Your task to perform on an android device: delete a single message in the gmail app Image 0: 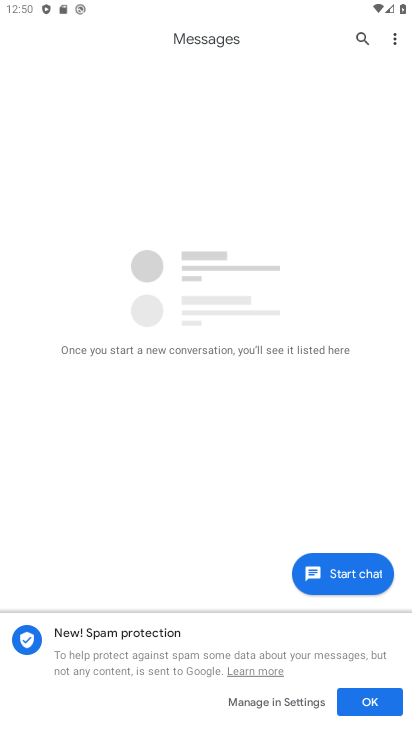
Step 0: press home button
Your task to perform on an android device: delete a single message in the gmail app Image 1: 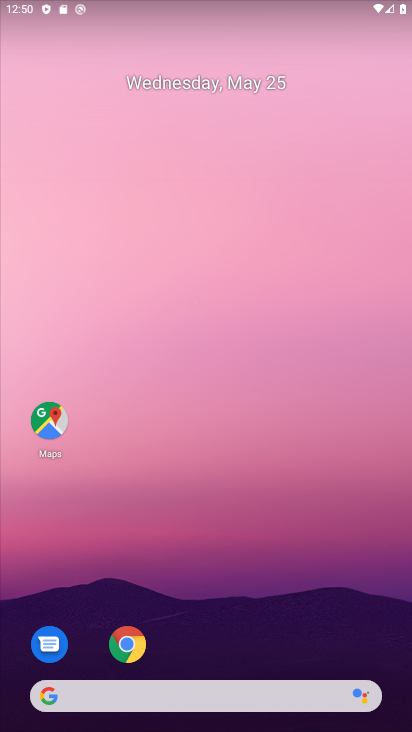
Step 1: drag from (206, 646) to (200, 29)
Your task to perform on an android device: delete a single message in the gmail app Image 2: 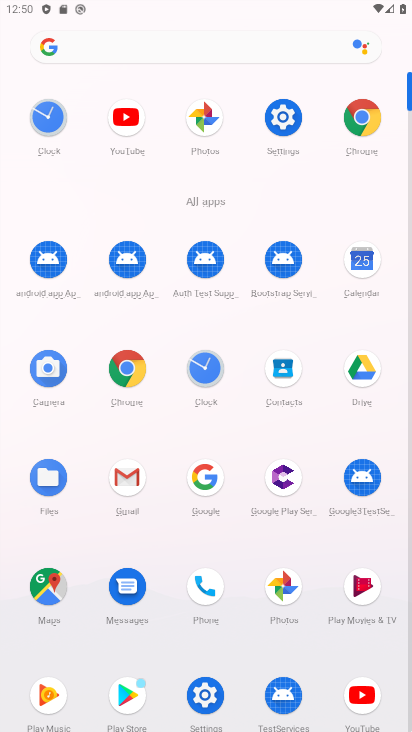
Step 2: click (117, 481)
Your task to perform on an android device: delete a single message in the gmail app Image 3: 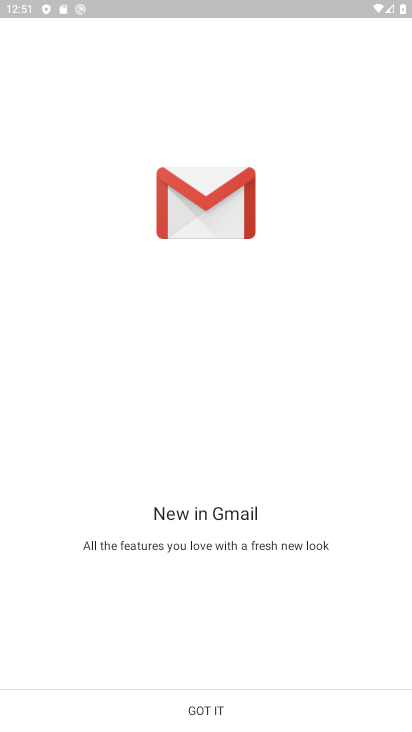
Step 3: click (183, 717)
Your task to perform on an android device: delete a single message in the gmail app Image 4: 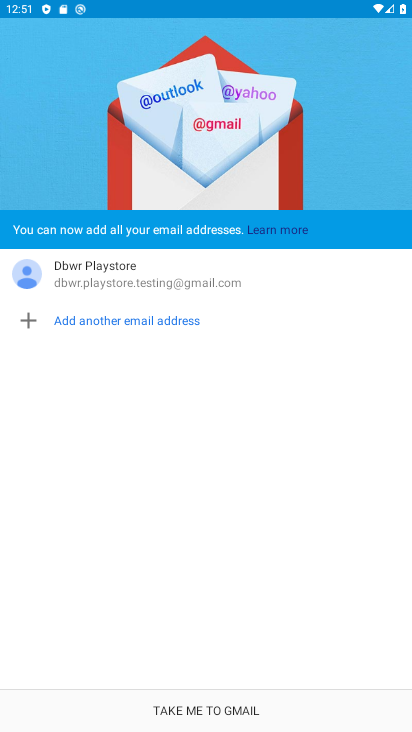
Step 4: click (183, 716)
Your task to perform on an android device: delete a single message in the gmail app Image 5: 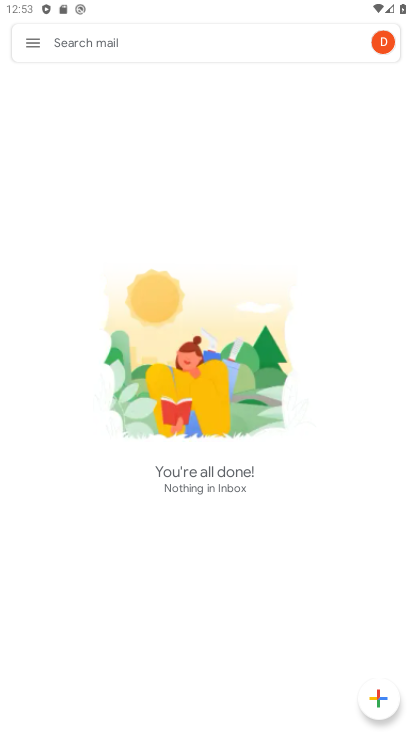
Step 5: task complete